Your task to perform on an android device: turn on javascript in the chrome app Image 0: 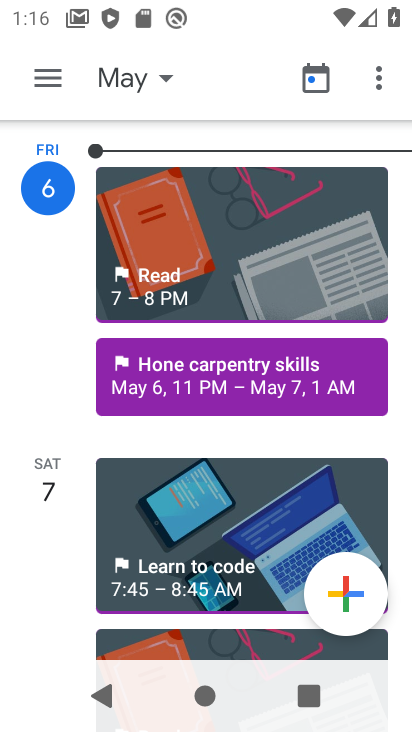
Step 0: press home button
Your task to perform on an android device: turn on javascript in the chrome app Image 1: 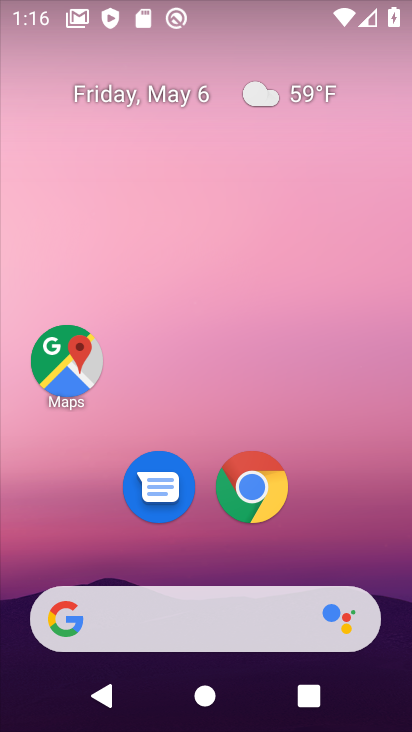
Step 1: drag from (188, 499) to (263, 5)
Your task to perform on an android device: turn on javascript in the chrome app Image 2: 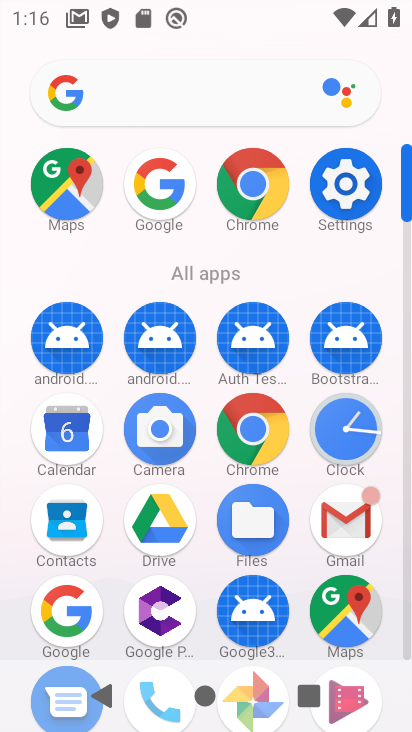
Step 2: click (242, 213)
Your task to perform on an android device: turn on javascript in the chrome app Image 3: 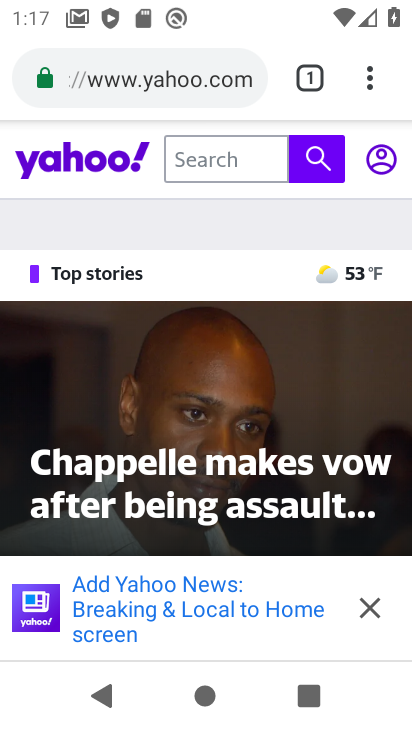
Step 3: click (376, 83)
Your task to perform on an android device: turn on javascript in the chrome app Image 4: 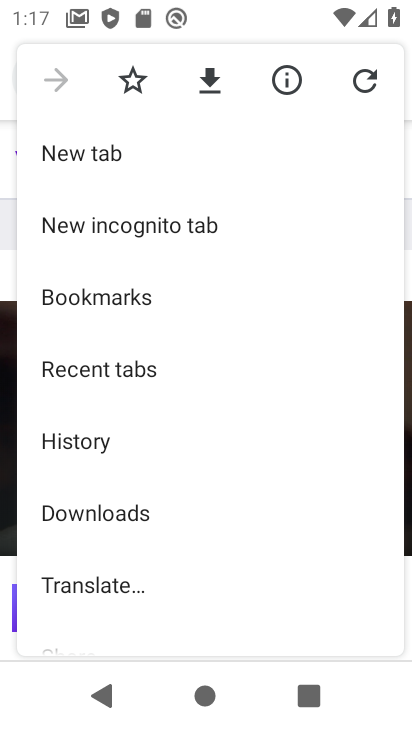
Step 4: drag from (239, 565) to (202, 108)
Your task to perform on an android device: turn on javascript in the chrome app Image 5: 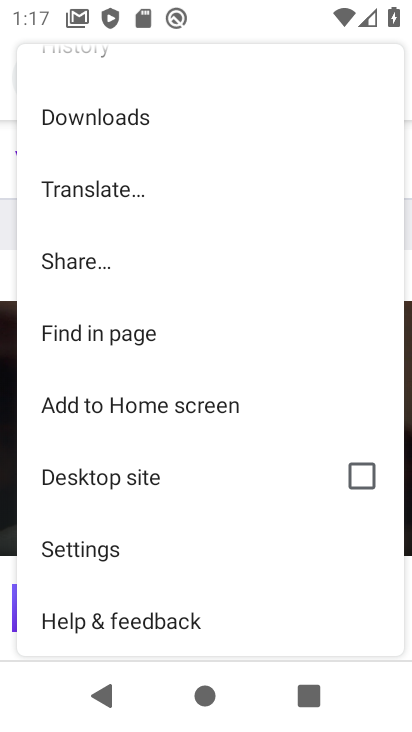
Step 5: click (167, 554)
Your task to perform on an android device: turn on javascript in the chrome app Image 6: 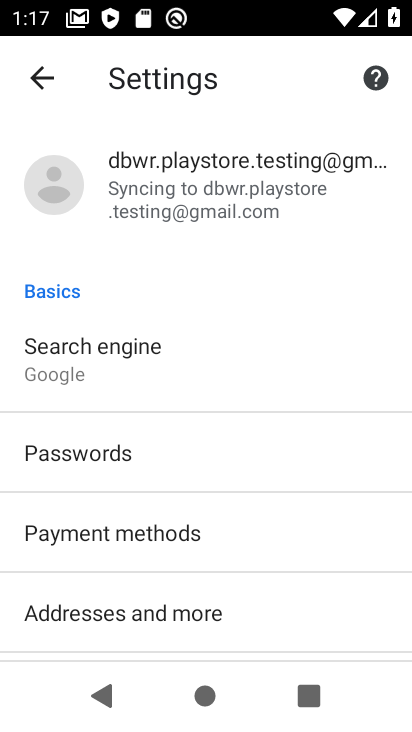
Step 6: drag from (278, 578) to (245, 130)
Your task to perform on an android device: turn on javascript in the chrome app Image 7: 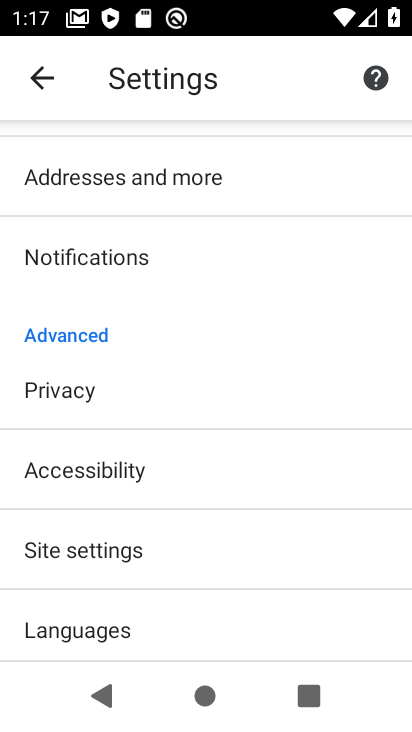
Step 7: click (192, 545)
Your task to perform on an android device: turn on javascript in the chrome app Image 8: 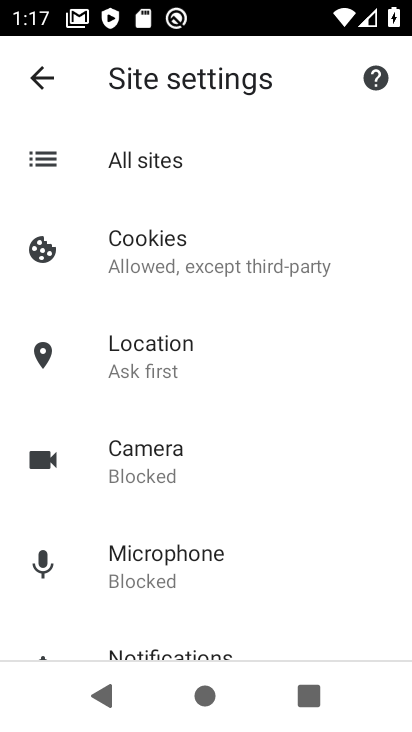
Step 8: drag from (188, 538) to (164, 202)
Your task to perform on an android device: turn on javascript in the chrome app Image 9: 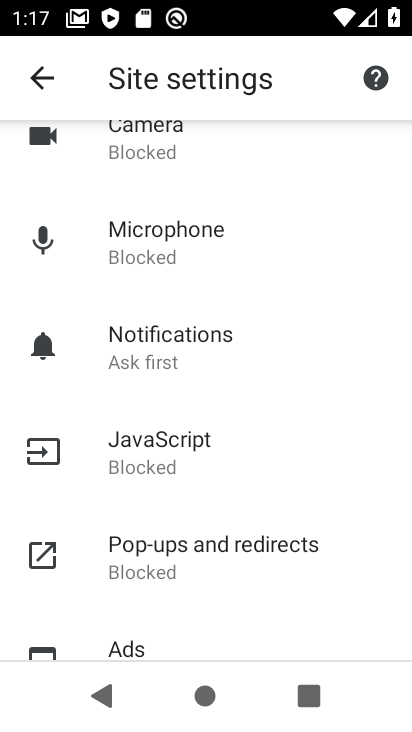
Step 9: click (138, 437)
Your task to perform on an android device: turn on javascript in the chrome app Image 10: 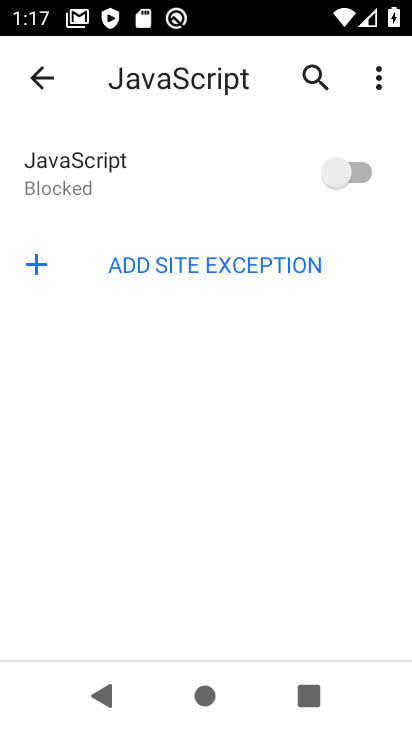
Step 10: click (356, 172)
Your task to perform on an android device: turn on javascript in the chrome app Image 11: 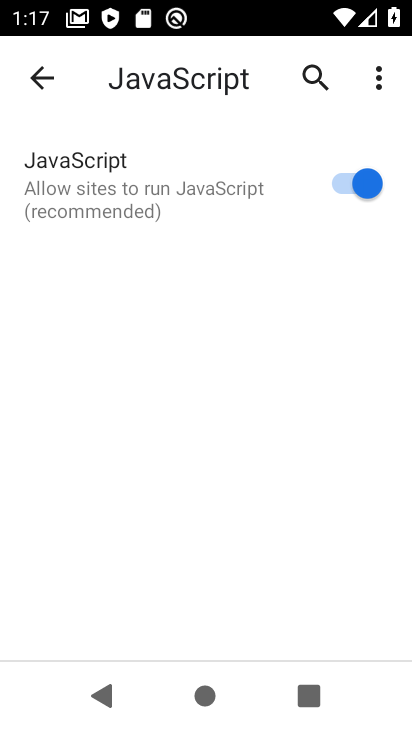
Step 11: task complete